Your task to perform on an android device: What's the latest video from GameXplain? Image 0: 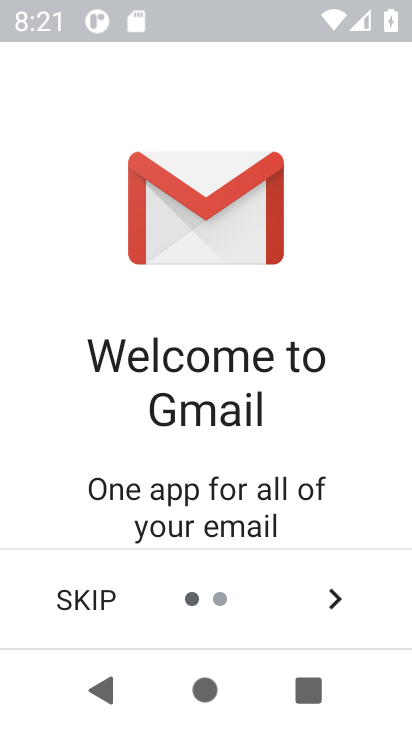
Step 0: click (65, 614)
Your task to perform on an android device: What's the latest video from GameXplain? Image 1: 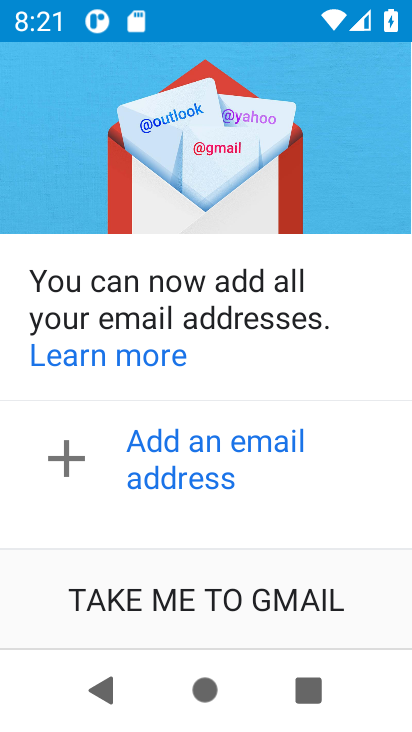
Step 1: click (98, 610)
Your task to perform on an android device: What's the latest video from GameXplain? Image 2: 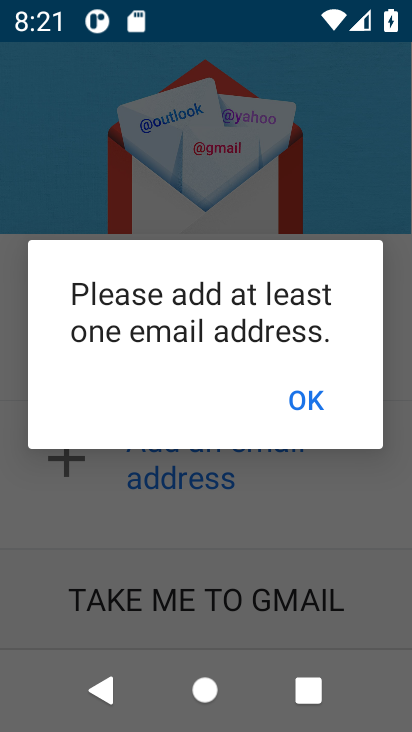
Step 2: click (311, 400)
Your task to perform on an android device: What's the latest video from GameXplain? Image 3: 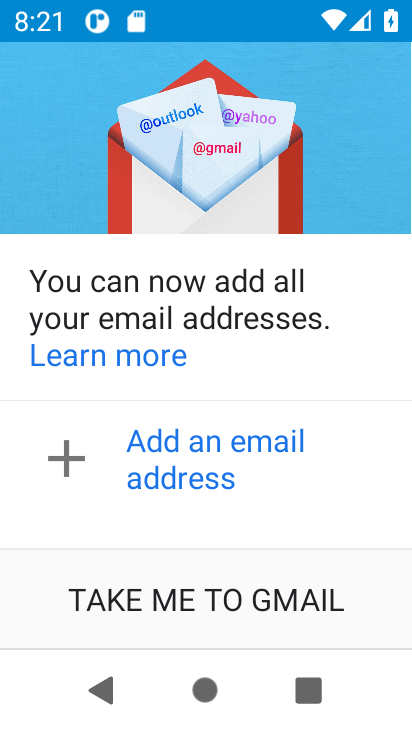
Step 3: press home button
Your task to perform on an android device: What's the latest video from GameXplain? Image 4: 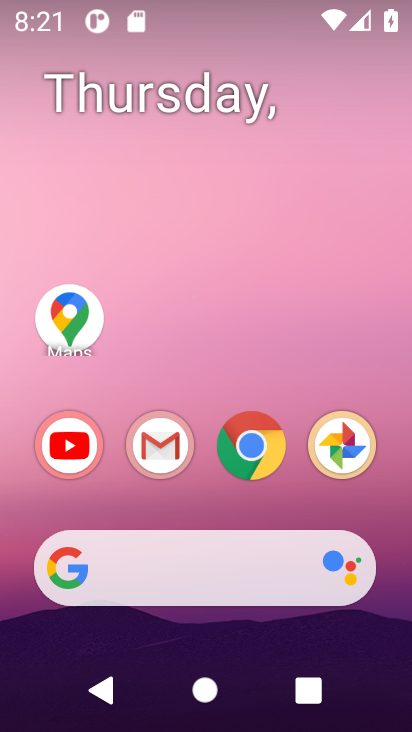
Step 4: click (66, 456)
Your task to perform on an android device: What's the latest video from GameXplain? Image 5: 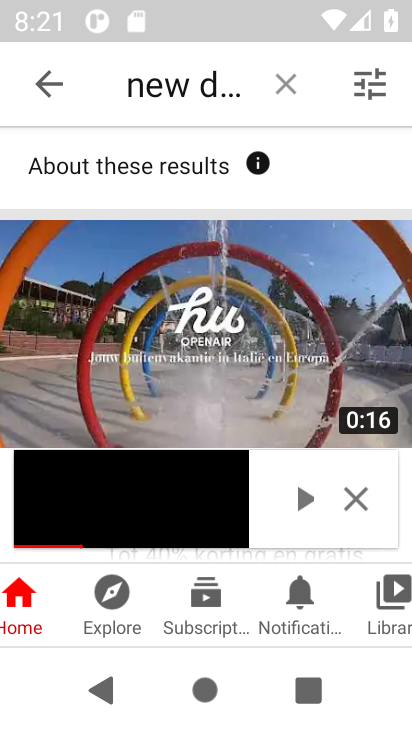
Step 5: click (268, 95)
Your task to perform on an android device: What's the latest video from GameXplain? Image 6: 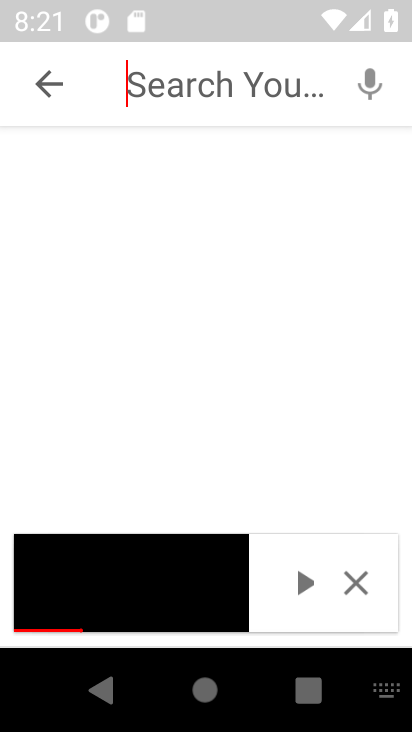
Step 6: type " latest video from GameXplain"
Your task to perform on an android device: What's the latest video from GameXplain? Image 7: 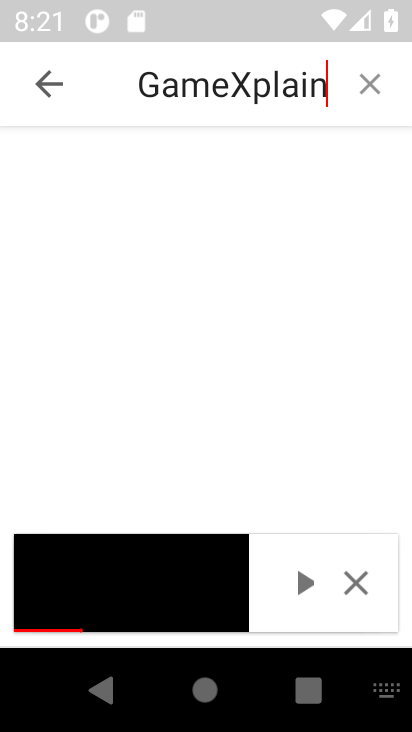
Step 7: click (336, 583)
Your task to perform on an android device: What's the latest video from GameXplain? Image 8: 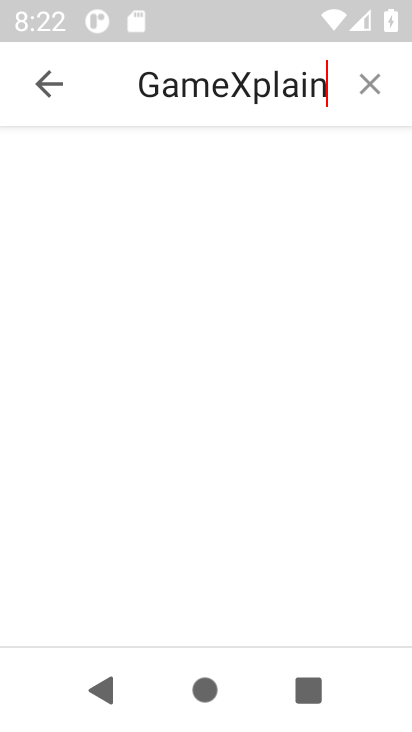
Step 8: task complete